Your task to perform on an android device: turn off improve location accuracy Image 0: 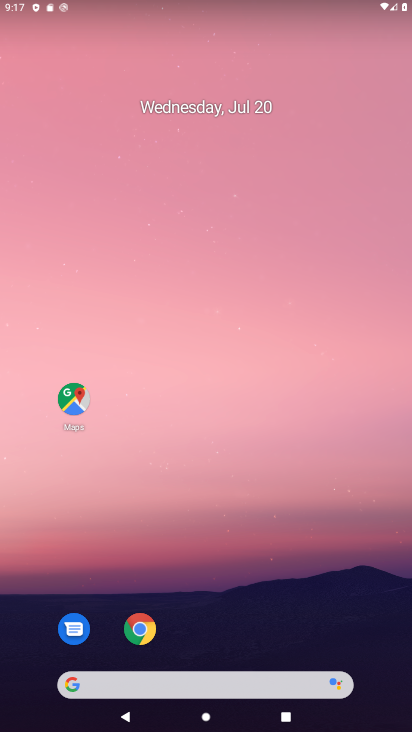
Step 0: drag from (320, 552) to (393, 18)
Your task to perform on an android device: turn off improve location accuracy Image 1: 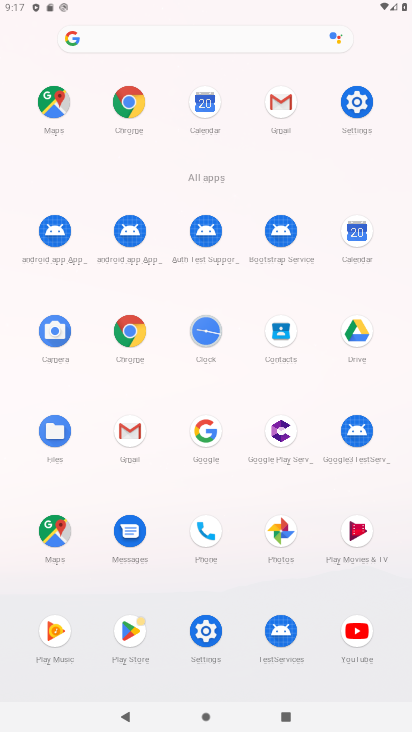
Step 1: click (362, 95)
Your task to perform on an android device: turn off improve location accuracy Image 2: 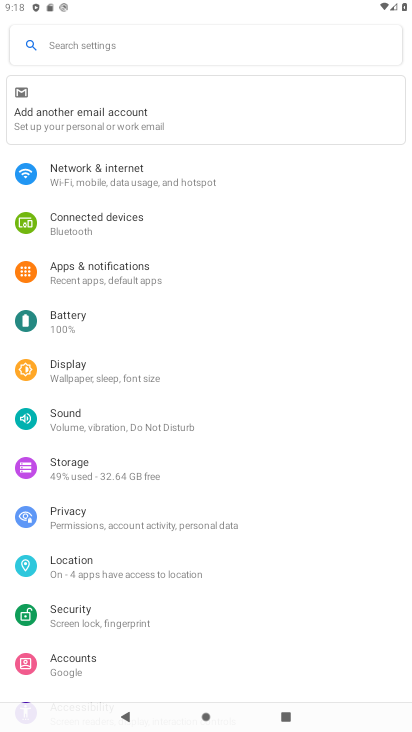
Step 2: click (97, 571)
Your task to perform on an android device: turn off improve location accuracy Image 3: 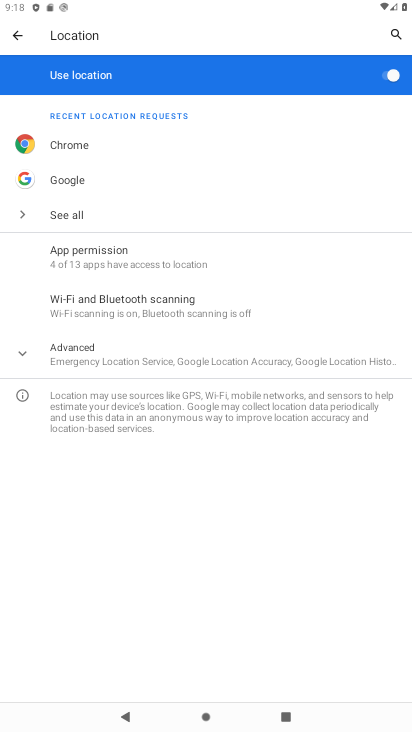
Step 3: click (113, 371)
Your task to perform on an android device: turn off improve location accuracy Image 4: 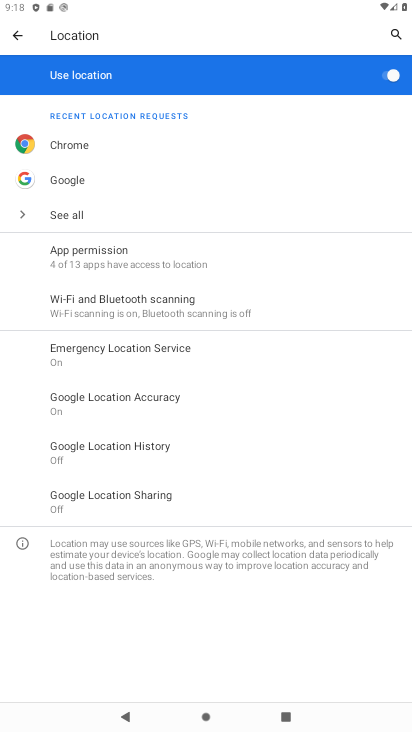
Step 4: click (118, 395)
Your task to perform on an android device: turn off improve location accuracy Image 5: 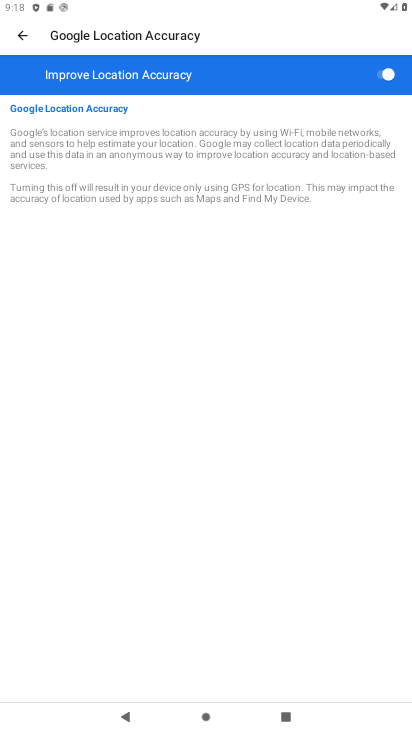
Step 5: click (378, 75)
Your task to perform on an android device: turn off improve location accuracy Image 6: 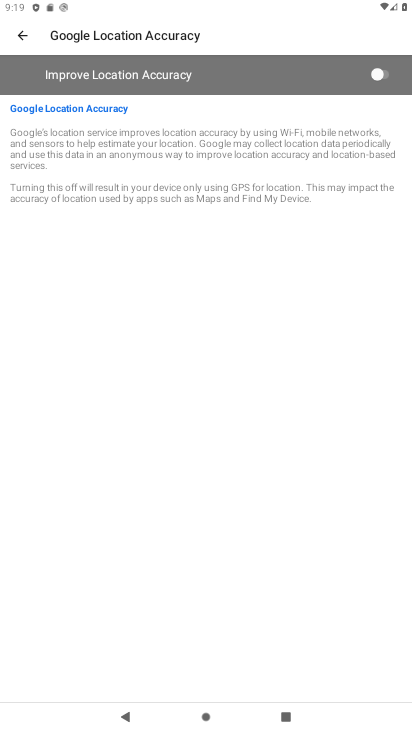
Step 6: task complete